Your task to perform on an android device: change the clock display to digital Image 0: 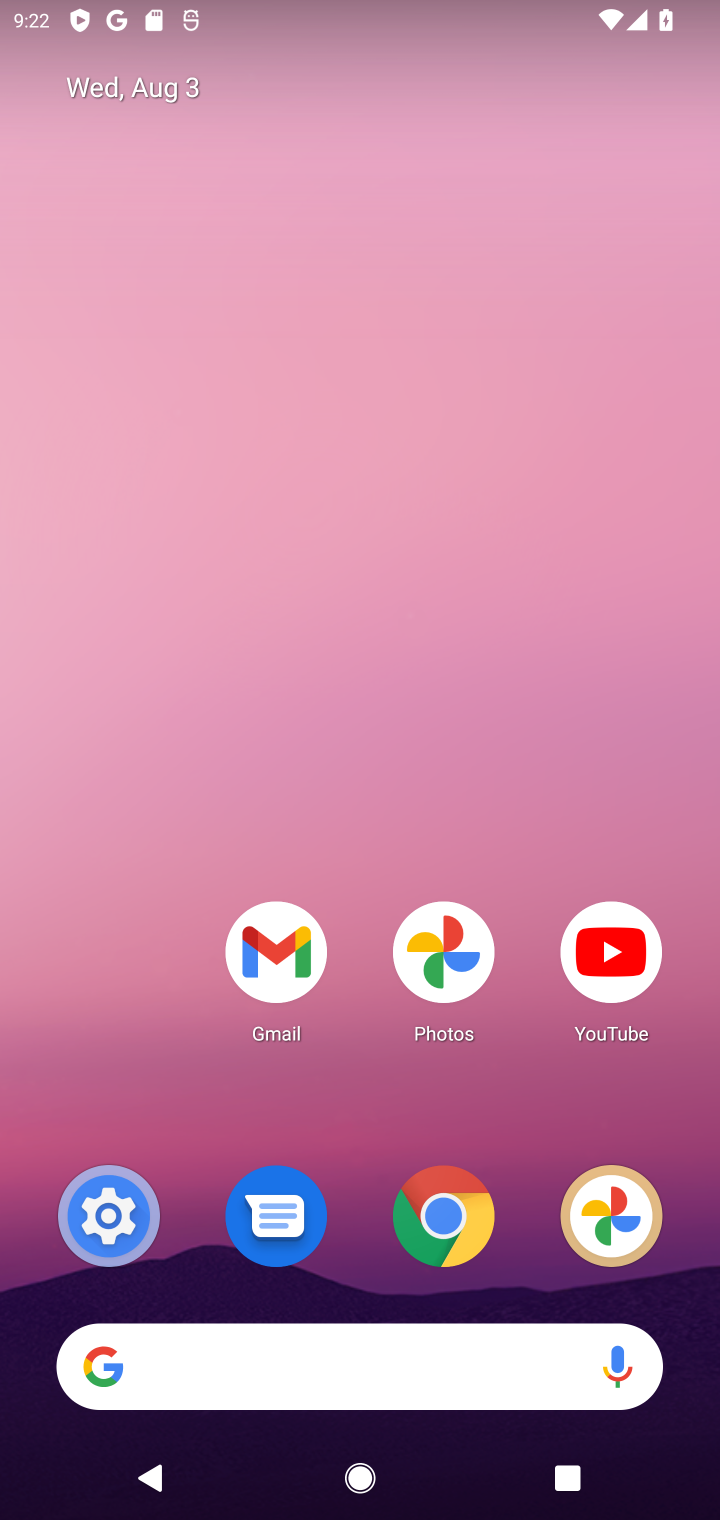
Step 0: drag from (147, 1044) to (282, 228)
Your task to perform on an android device: change the clock display to digital Image 1: 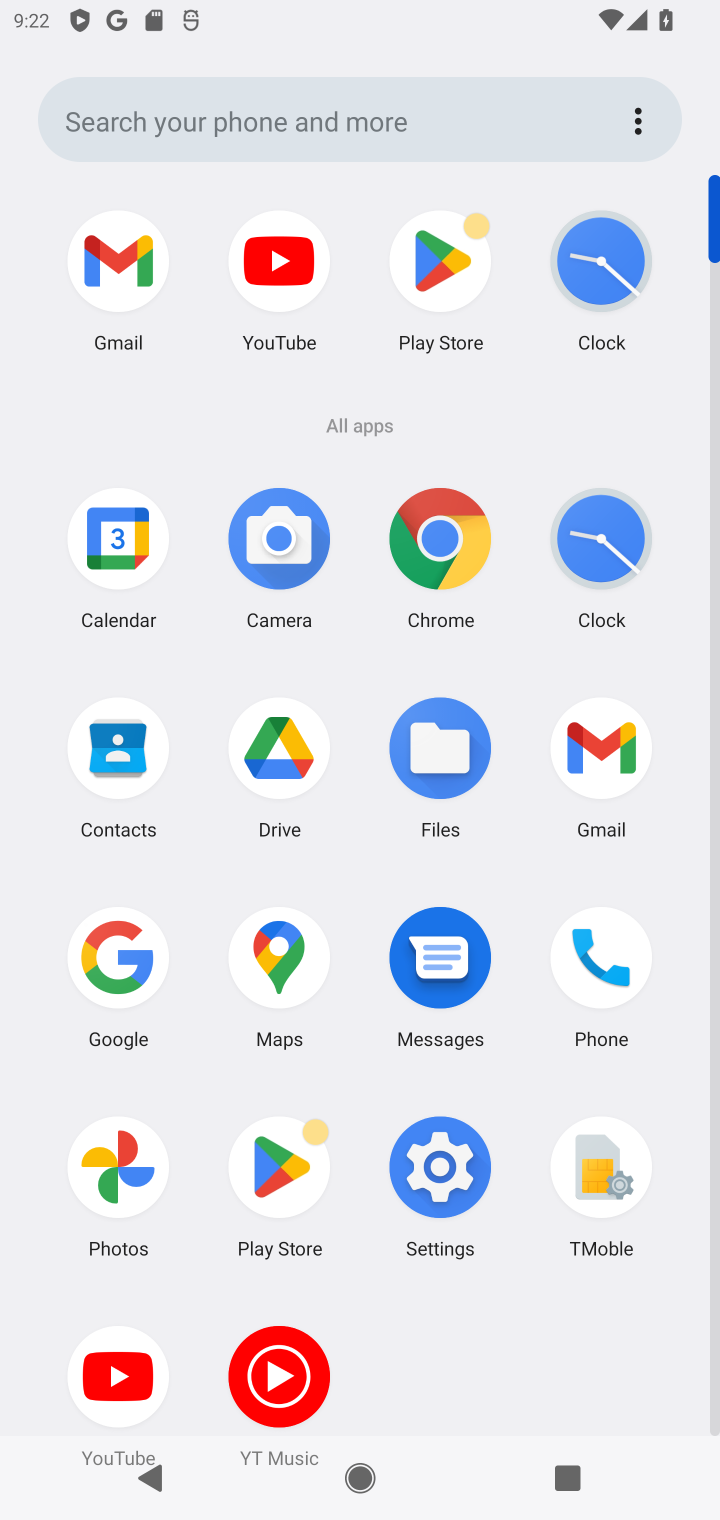
Step 1: click (595, 523)
Your task to perform on an android device: change the clock display to digital Image 2: 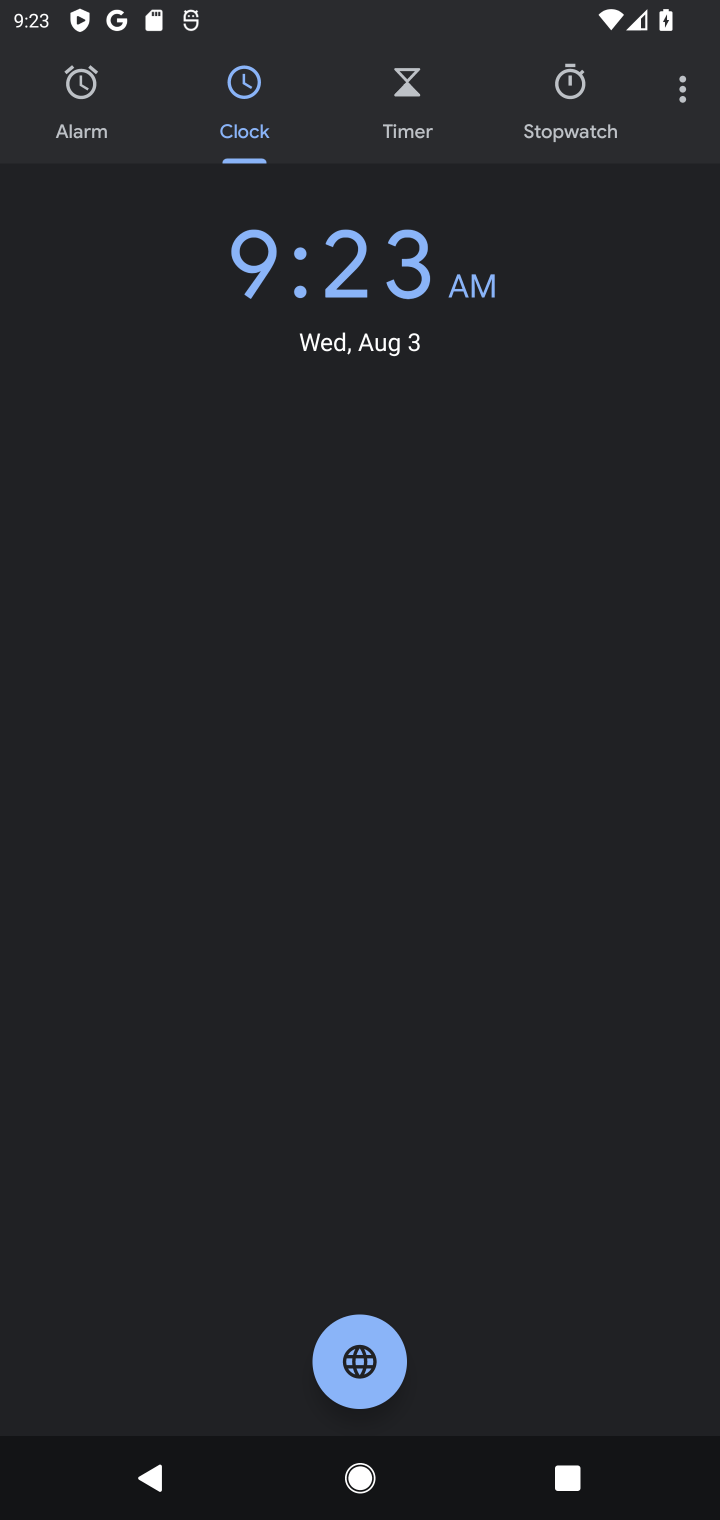
Step 2: click (677, 69)
Your task to perform on an android device: change the clock display to digital Image 3: 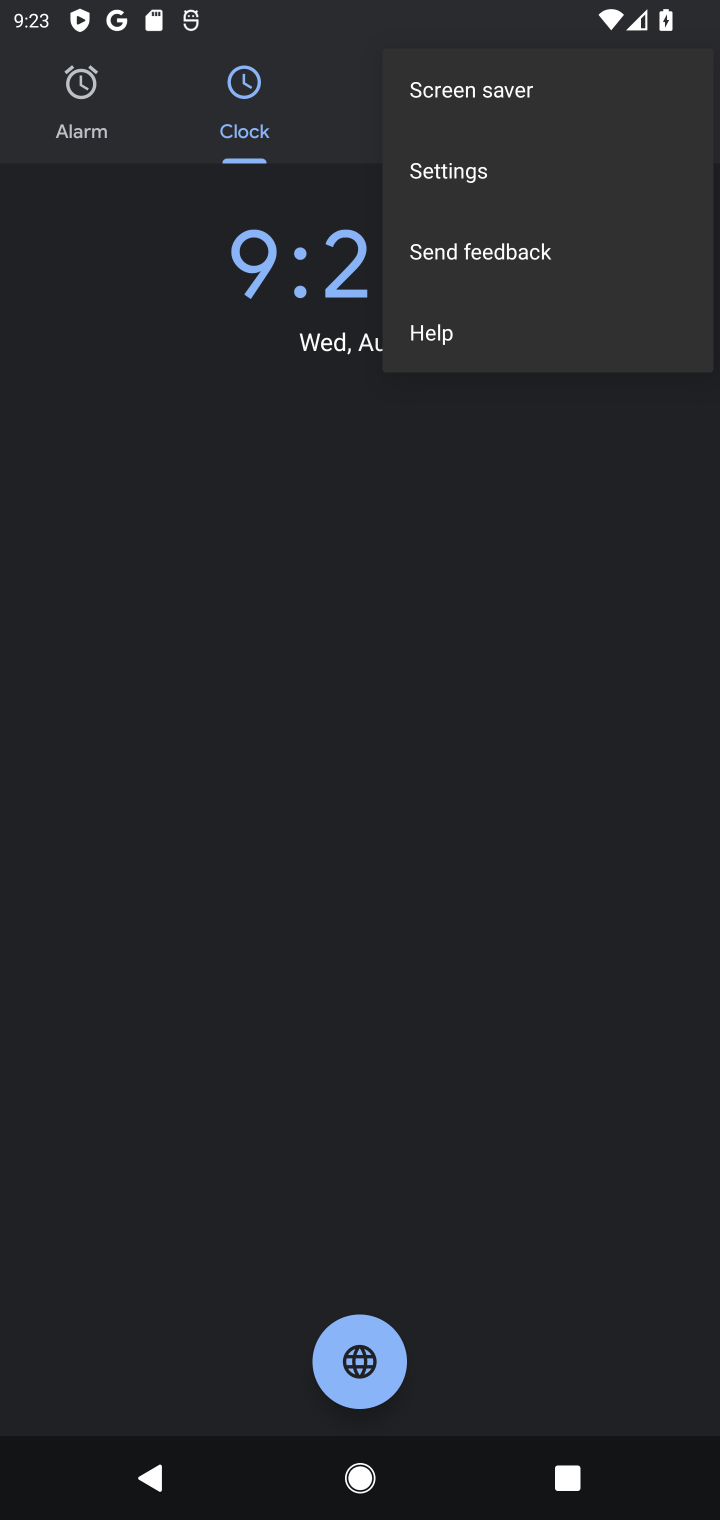
Step 3: click (445, 172)
Your task to perform on an android device: change the clock display to digital Image 4: 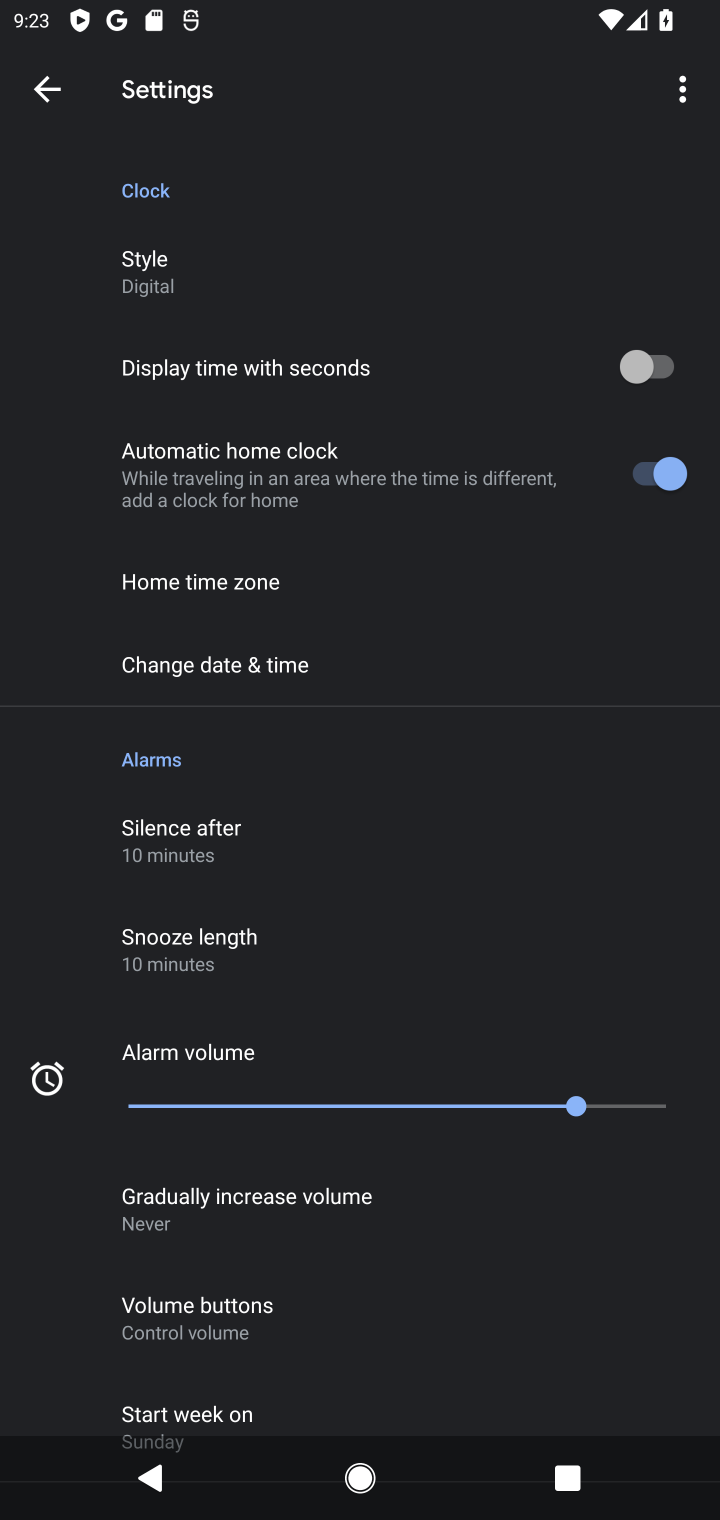
Step 4: task complete